Your task to perform on an android device: add a contact Image 0: 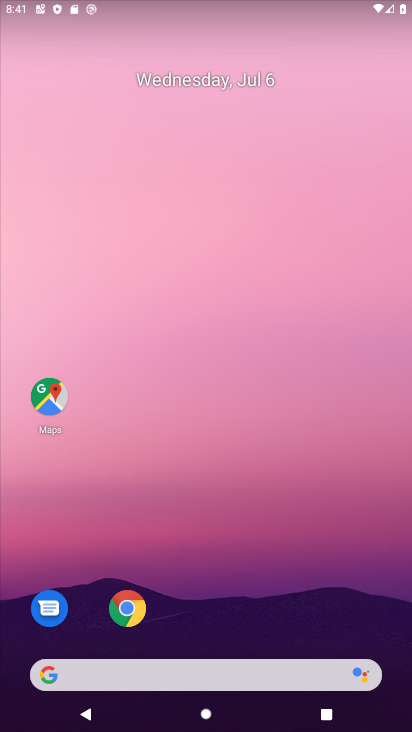
Step 0: drag from (155, 650) to (158, 242)
Your task to perform on an android device: add a contact Image 1: 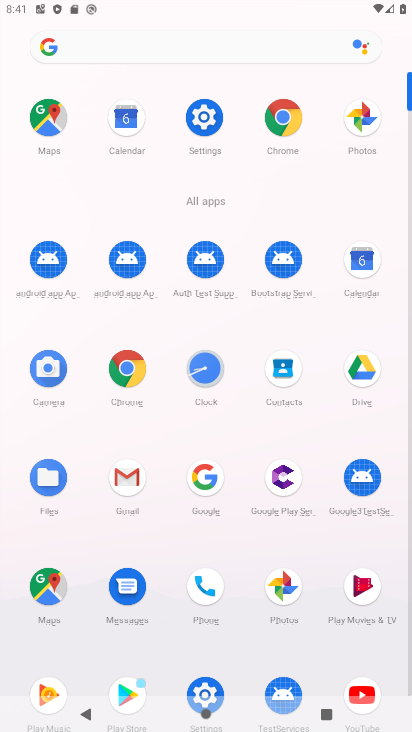
Step 1: click (279, 368)
Your task to perform on an android device: add a contact Image 2: 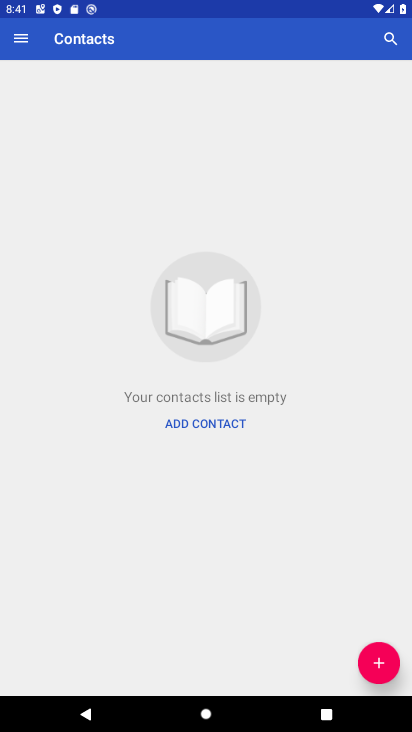
Step 2: click (388, 666)
Your task to perform on an android device: add a contact Image 3: 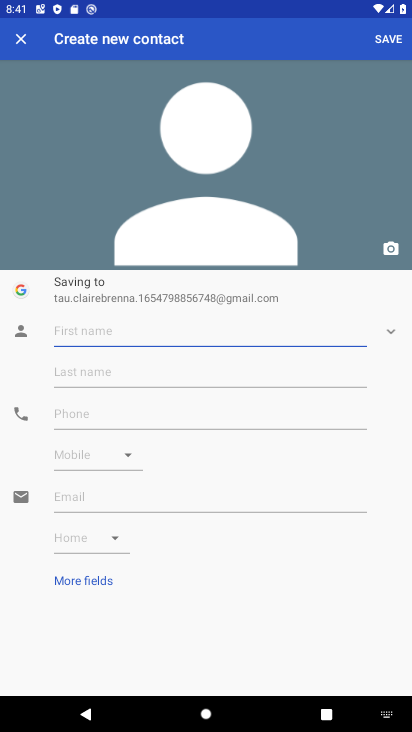
Step 3: type "nita"
Your task to perform on an android device: add a contact Image 4: 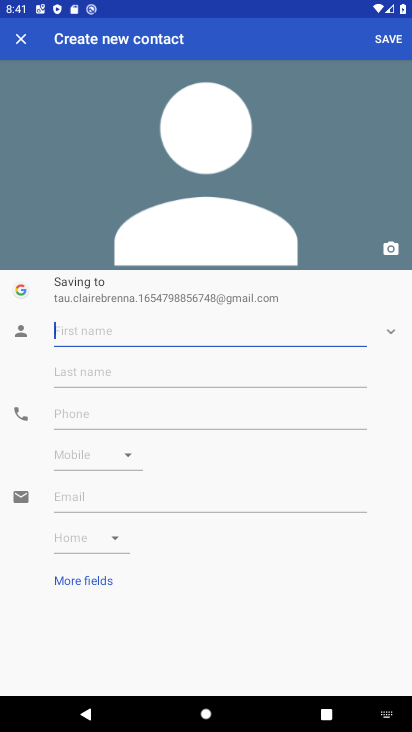
Step 4: click (77, 367)
Your task to perform on an android device: add a contact Image 5: 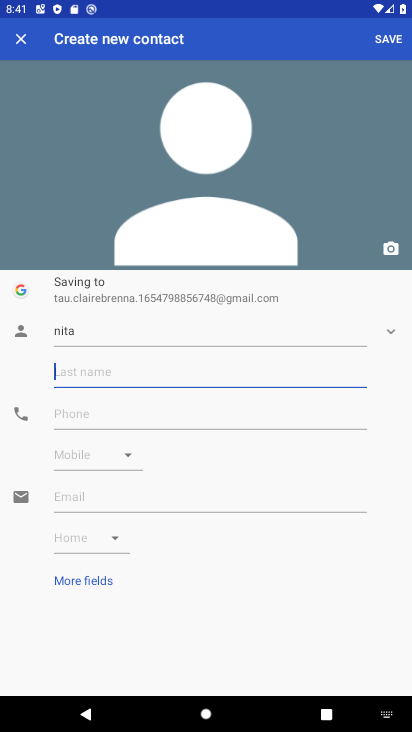
Step 5: type "lula"
Your task to perform on an android device: add a contact Image 6: 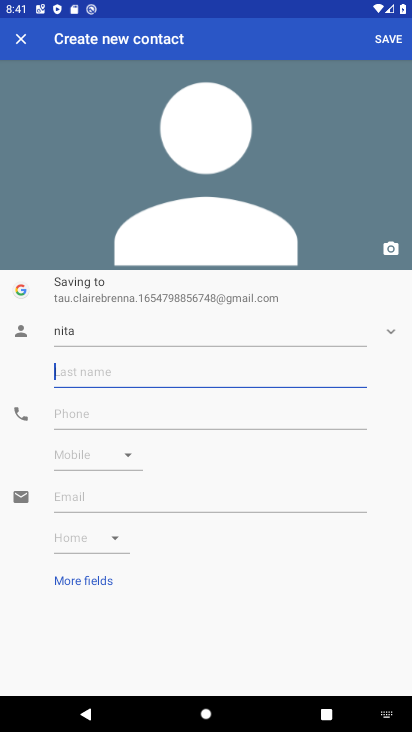
Step 6: click (96, 411)
Your task to perform on an android device: add a contact Image 7: 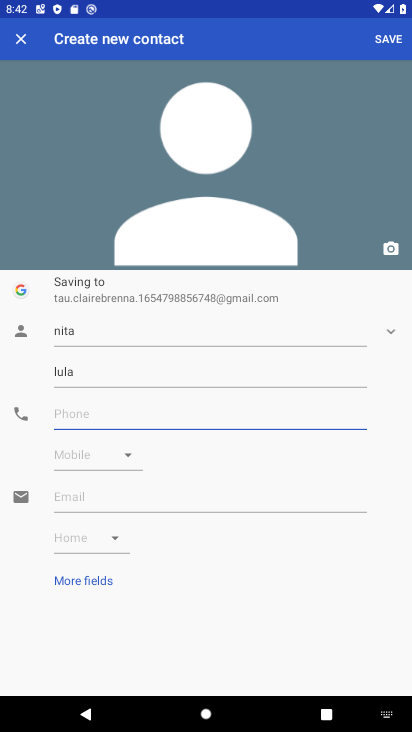
Step 7: type "9807678790"
Your task to perform on an android device: add a contact Image 8: 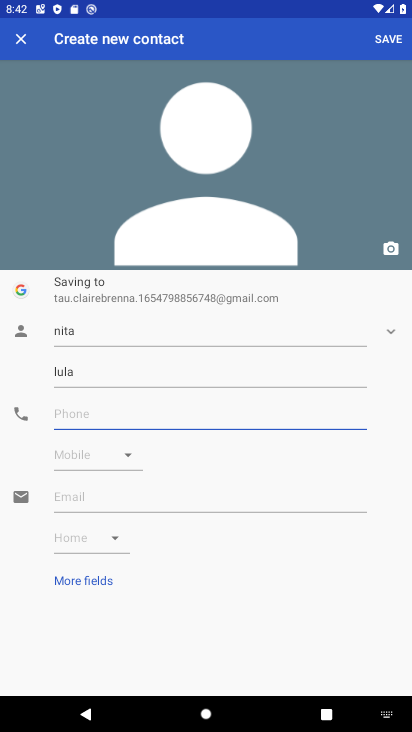
Step 8: click (74, 463)
Your task to perform on an android device: add a contact Image 9: 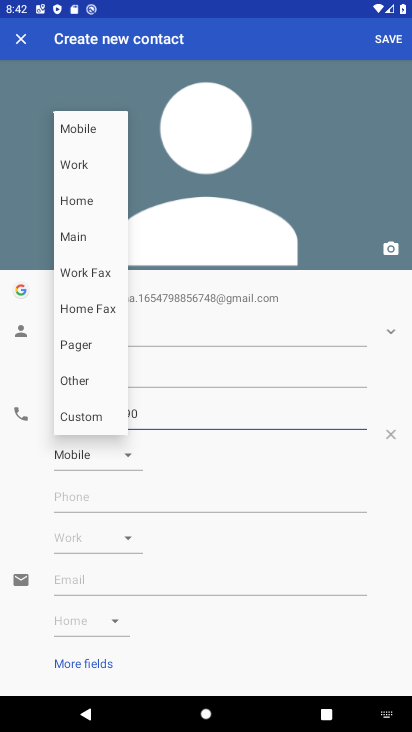
Step 9: click (89, 125)
Your task to perform on an android device: add a contact Image 10: 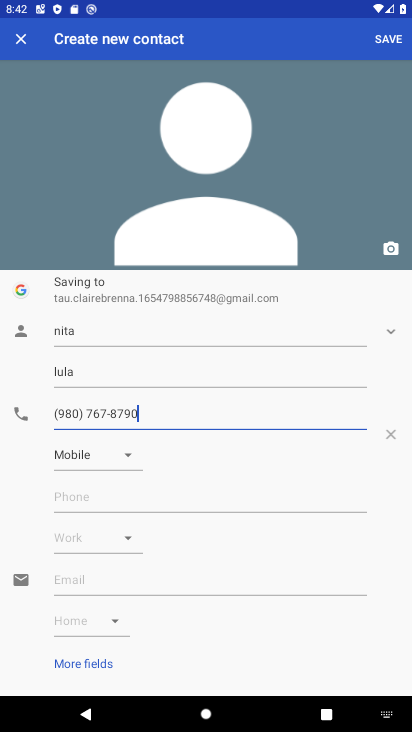
Step 10: click (380, 38)
Your task to perform on an android device: add a contact Image 11: 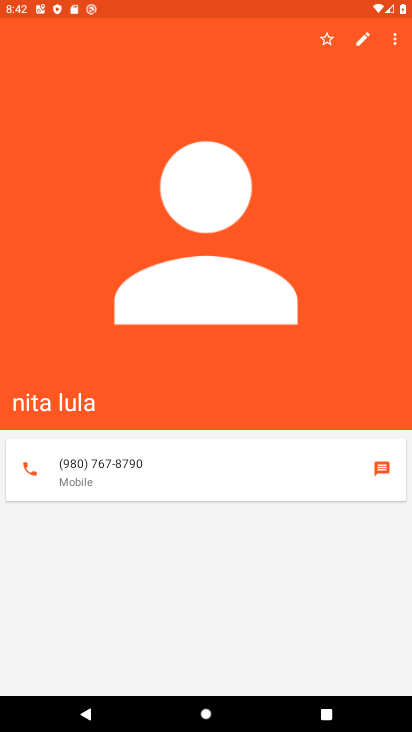
Step 11: task complete